Your task to perform on an android device: turn on showing notifications on the lock screen Image 0: 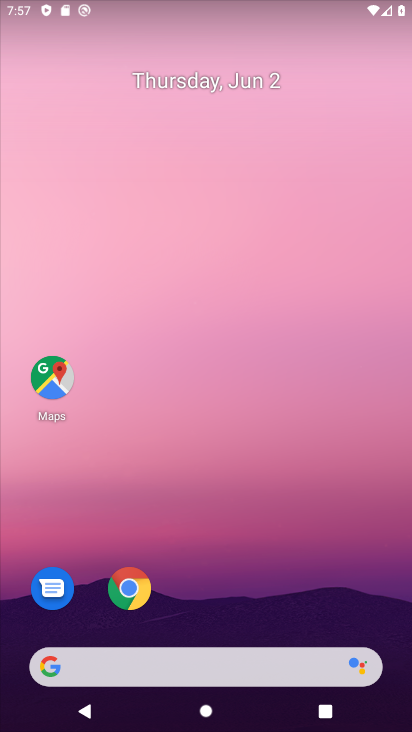
Step 0: drag from (228, 726) to (197, 109)
Your task to perform on an android device: turn on showing notifications on the lock screen Image 1: 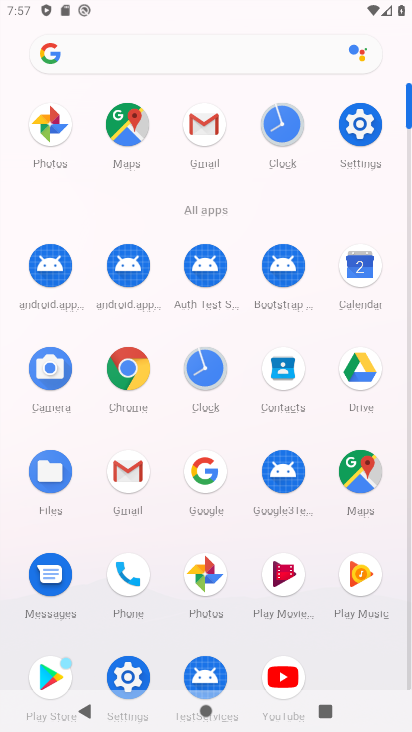
Step 1: click (357, 123)
Your task to perform on an android device: turn on showing notifications on the lock screen Image 2: 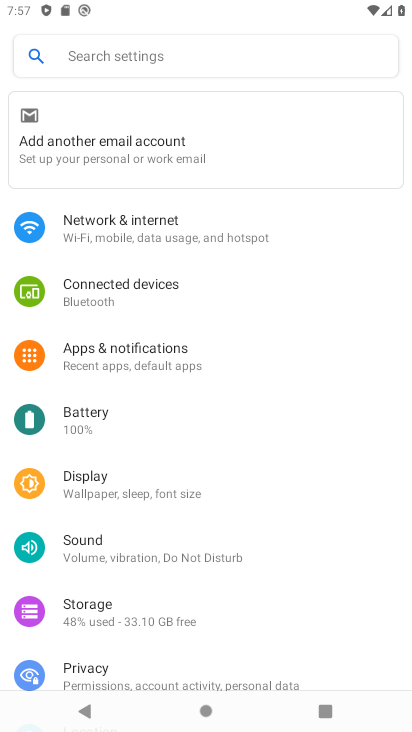
Step 2: click (158, 363)
Your task to perform on an android device: turn on showing notifications on the lock screen Image 3: 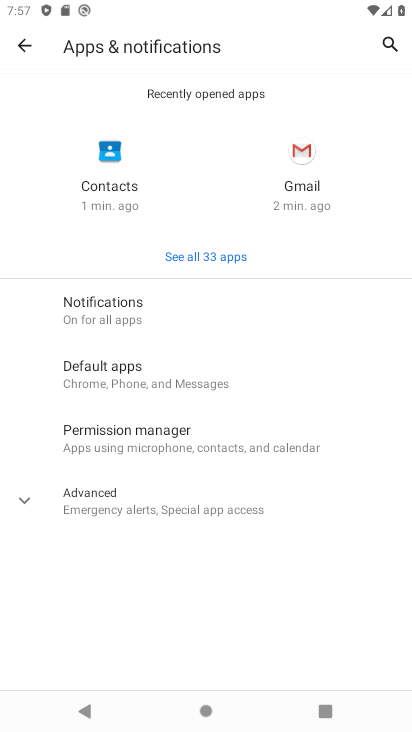
Step 3: click (98, 309)
Your task to perform on an android device: turn on showing notifications on the lock screen Image 4: 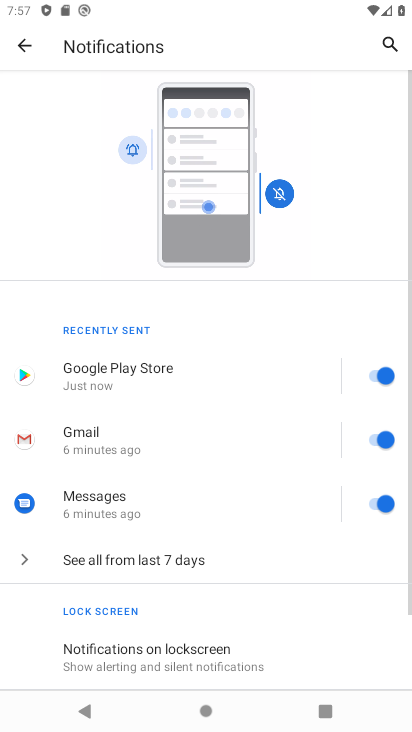
Step 4: drag from (196, 642) to (172, 301)
Your task to perform on an android device: turn on showing notifications on the lock screen Image 5: 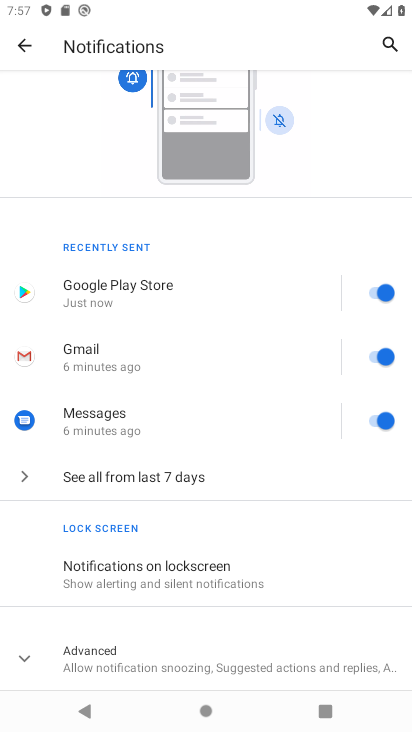
Step 5: click (162, 574)
Your task to perform on an android device: turn on showing notifications on the lock screen Image 6: 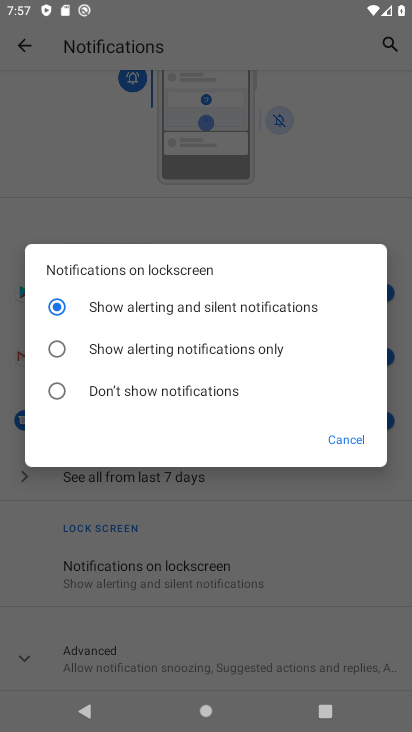
Step 6: click (344, 436)
Your task to perform on an android device: turn on showing notifications on the lock screen Image 7: 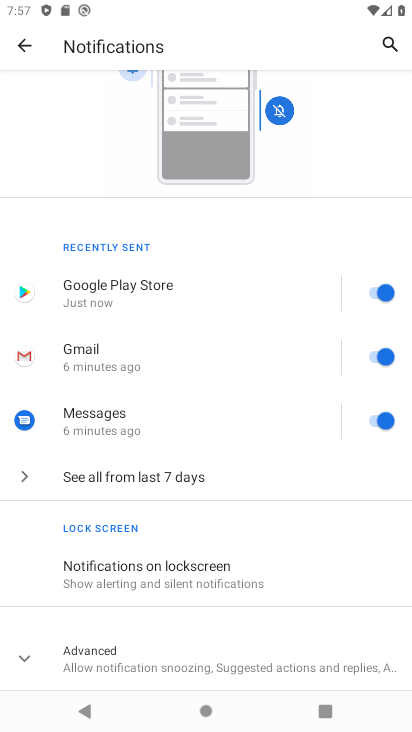
Step 7: task complete